Your task to perform on an android device: set an alarm Image 0: 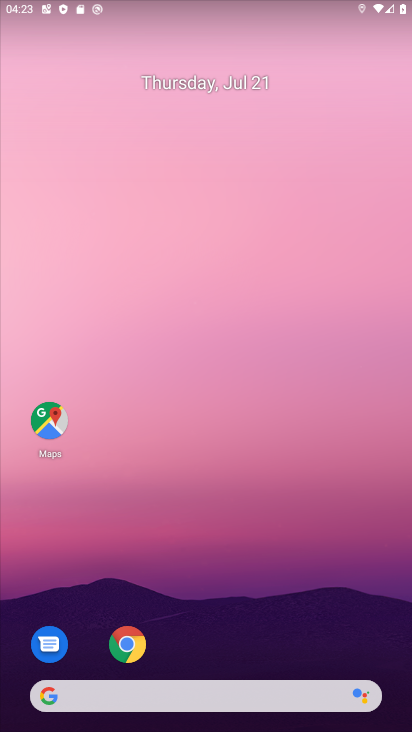
Step 0: drag from (314, 647) to (338, 92)
Your task to perform on an android device: set an alarm Image 1: 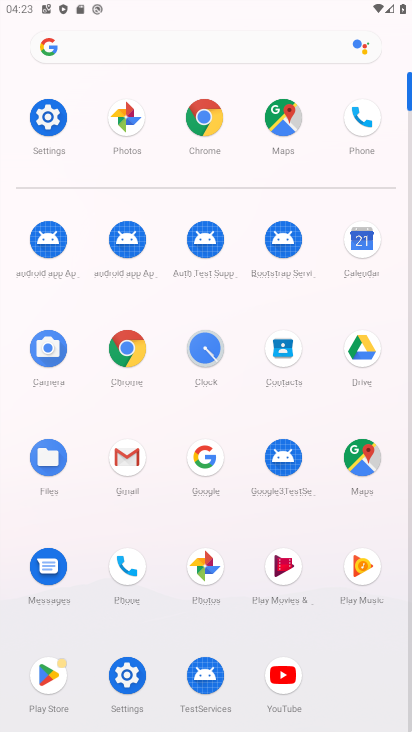
Step 1: click (206, 353)
Your task to perform on an android device: set an alarm Image 2: 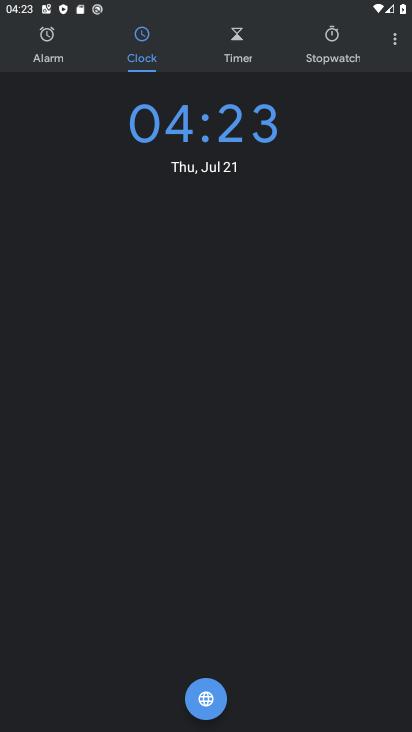
Step 2: click (46, 50)
Your task to perform on an android device: set an alarm Image 3: 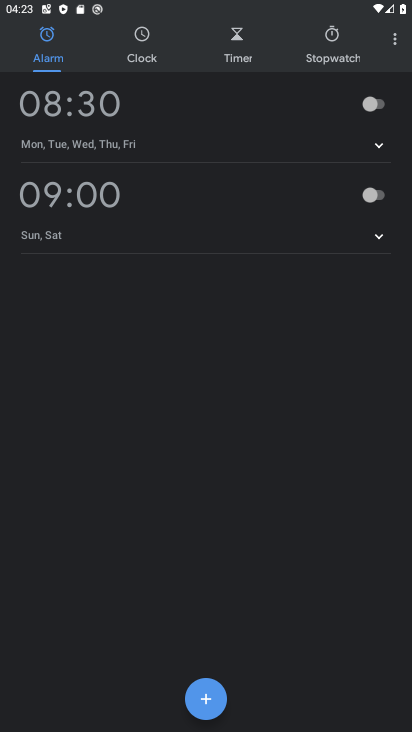
Step 3: click (205, 702)
Your task to perform on an android device: set an alarm Image 4: 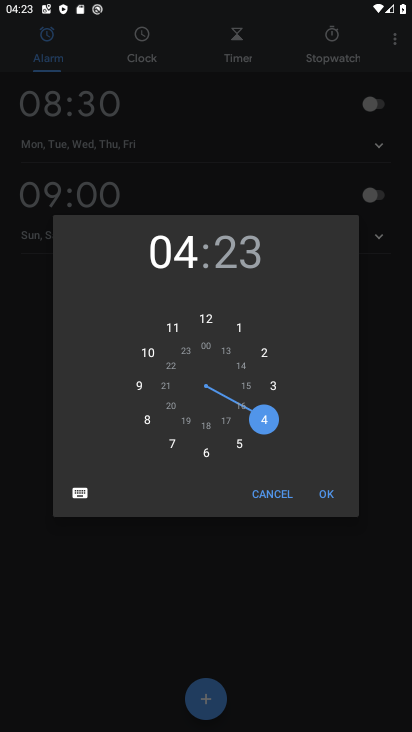
Step 4: click (208, 457)
Your task to perform on an android device: set an alarm Image 5: 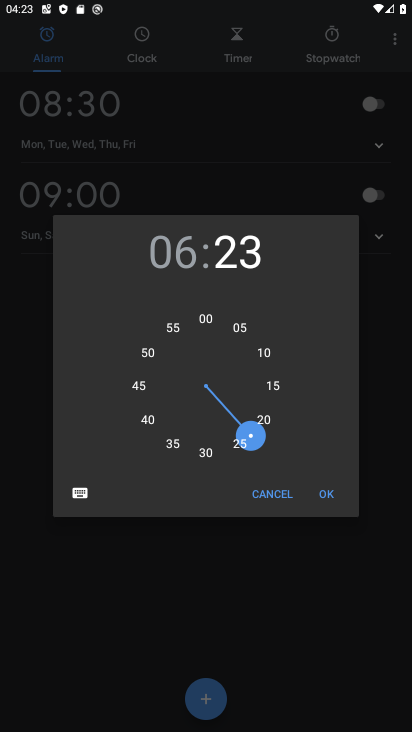
Step 5: click (209, 322)
Your task to perform on an android device: set an alarm Image 6: 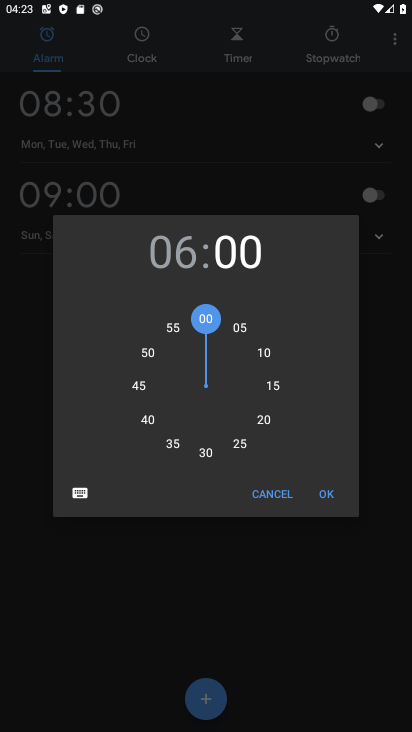
Step 6: click (323, 497)
Your task to perform on an android device: set an alarm Image 7: 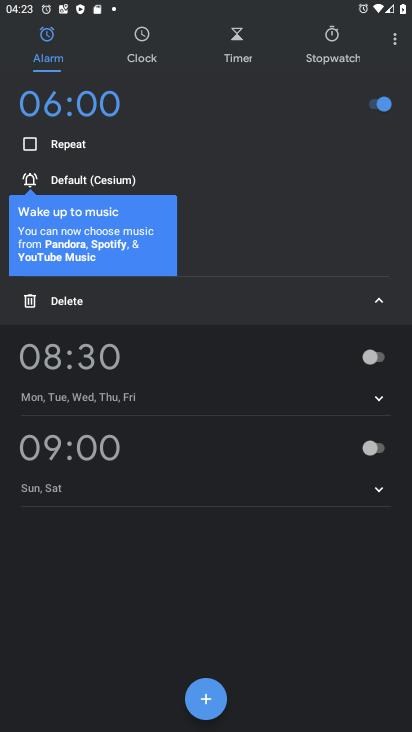
Step 7: task complete